Your task to perform on an android device: Go to accessibility settings Image 0: 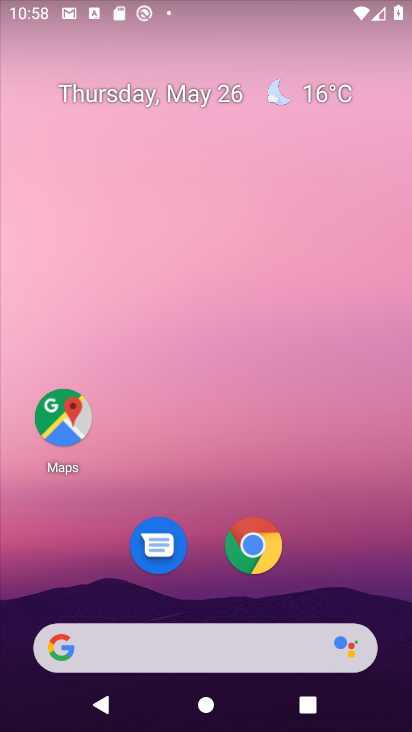
Step 0: press home button
Your task to perform on an android device: Go to accessibility settings Image 1: 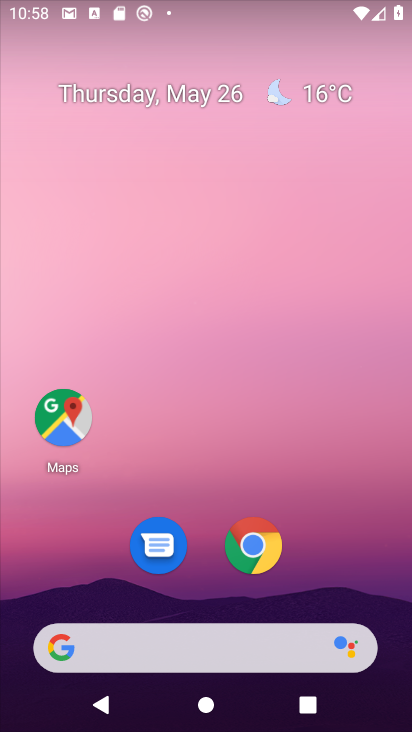
Step 1: drag from (200, 606) to (210, 161)
Your task to perform on an android device: Go to accessibility settings Image 2: 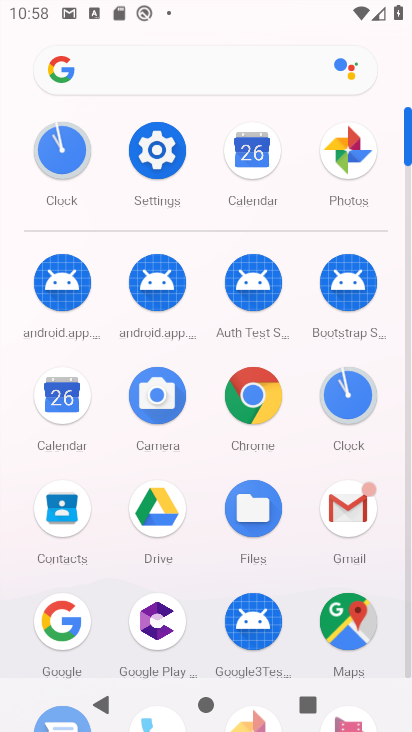
Step 2: click (148, 161)
Your task to perform on an android device: Go to accessibility settings Image 3: 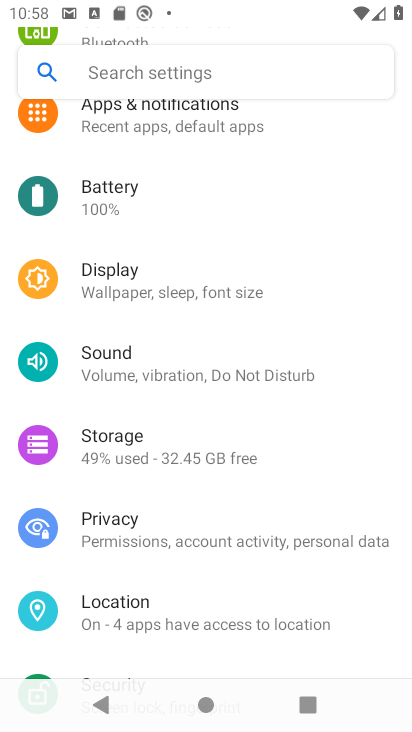
Step 3: drag from (364, 645) to (341, 299)
Your task to perform on an android device: Go to accessibility settings Image 4: 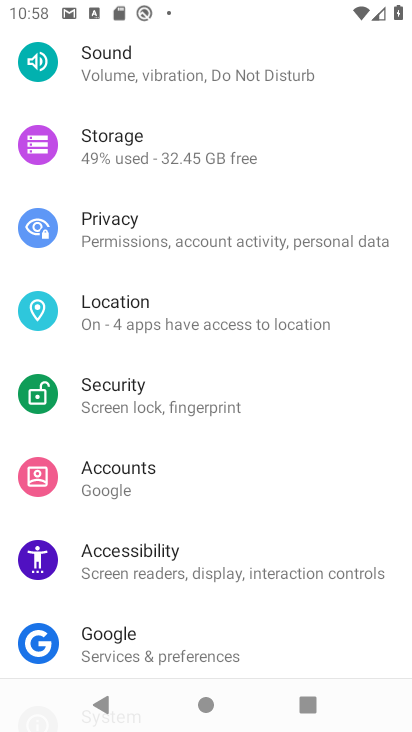
Step 4: click (125, 552)
Your task to perform on an android device: Go to accessibility settings Image 5: 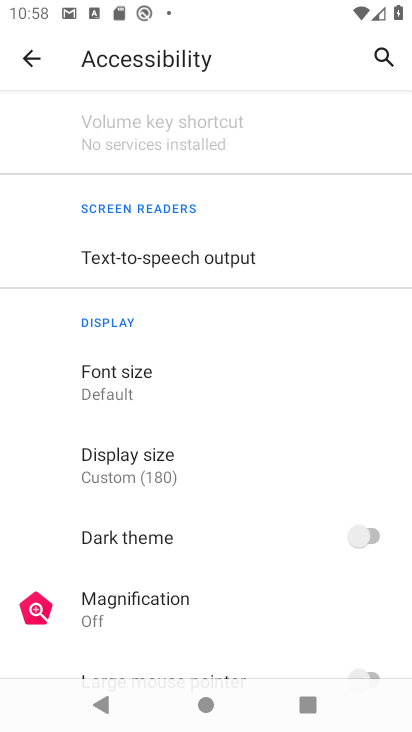
Step 5: task complete